Your task to perform on an android device: turn off wifi Image 0: 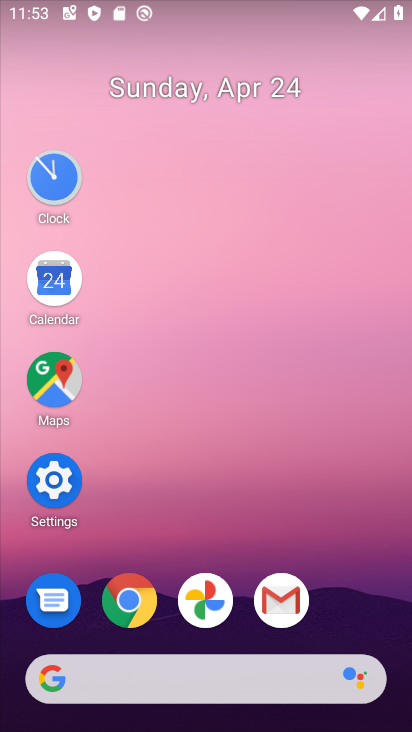
Step 0: click (48, 488)
Your task to perform on an android device: turn off wifi Image 1: 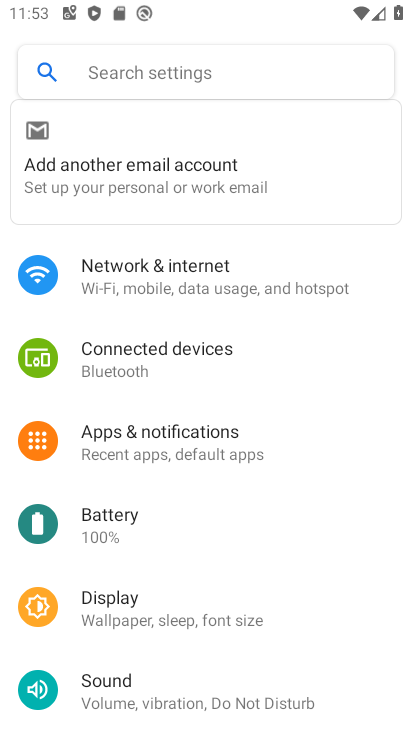
Step 1: click (144, 268)
Your task to perform on an android device: turn off wifi Image 2: 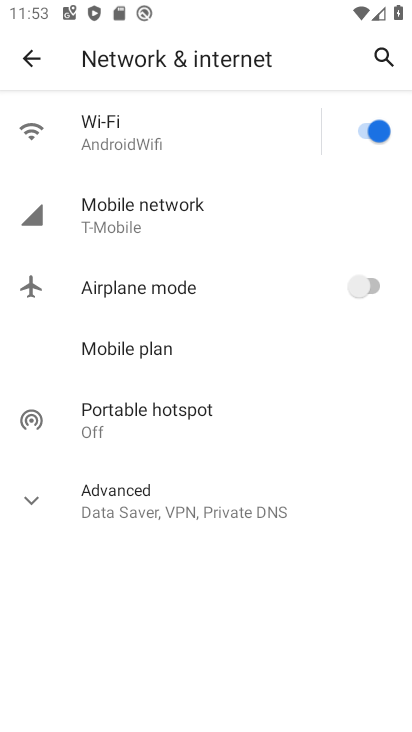
Step 2: click (369, 131)
Your task to perform on an android device: turn off wifi Image 3: 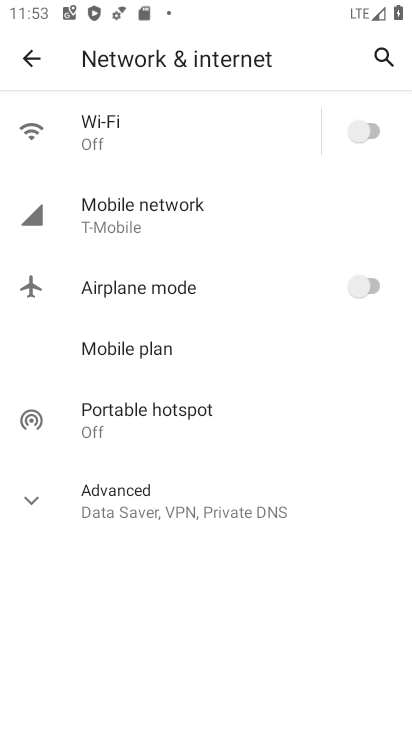
Step 3: task complete